Your task to perform on an android device: open app "Mercado Libre" (install if not already installed) Image 0: 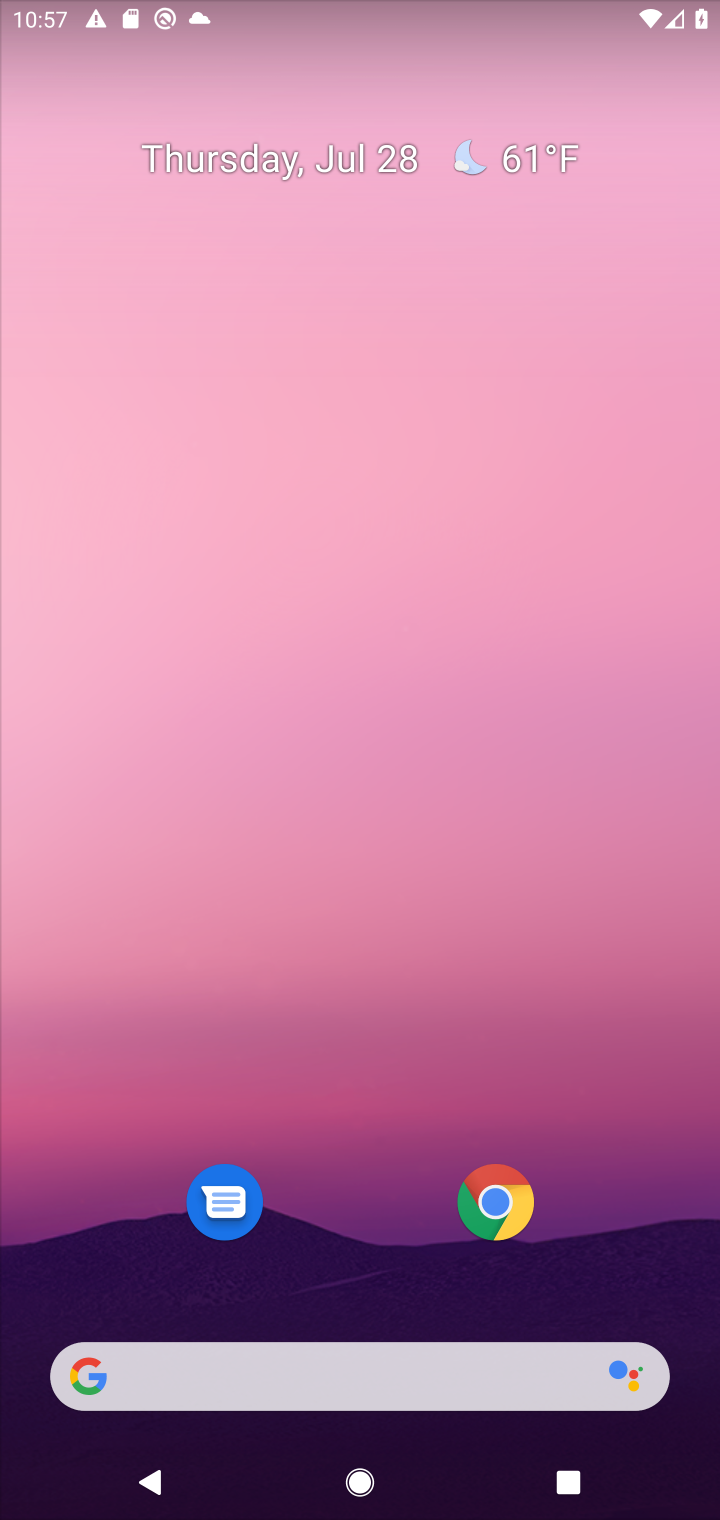
Step 0: click (442, 1364)
Your task to perform on an android device: open app "Mercado Libre" (install if not already installed) Image 1: 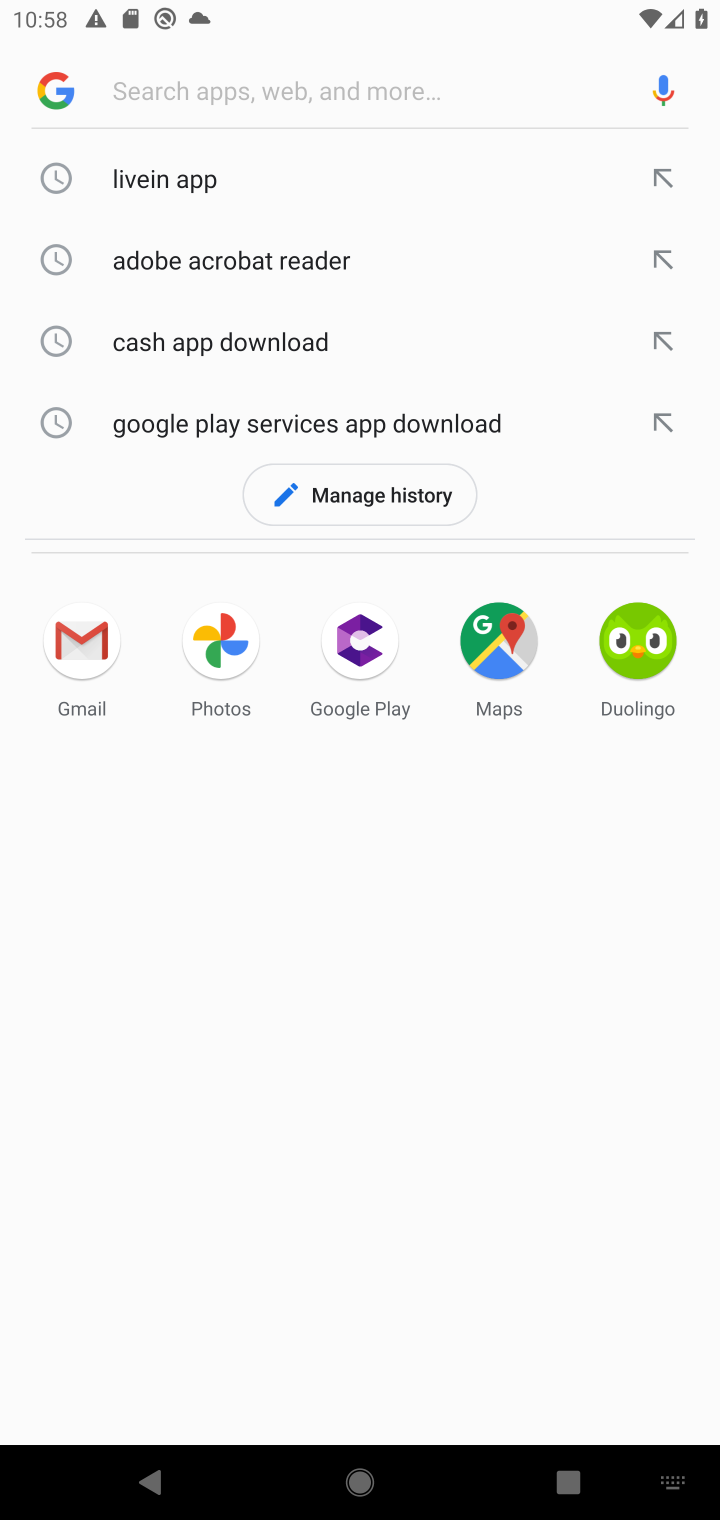
Step 1: type "mercado"
Your task to perform on an android device: open app "Mercado Libre" (install if not already installed) Image 2: 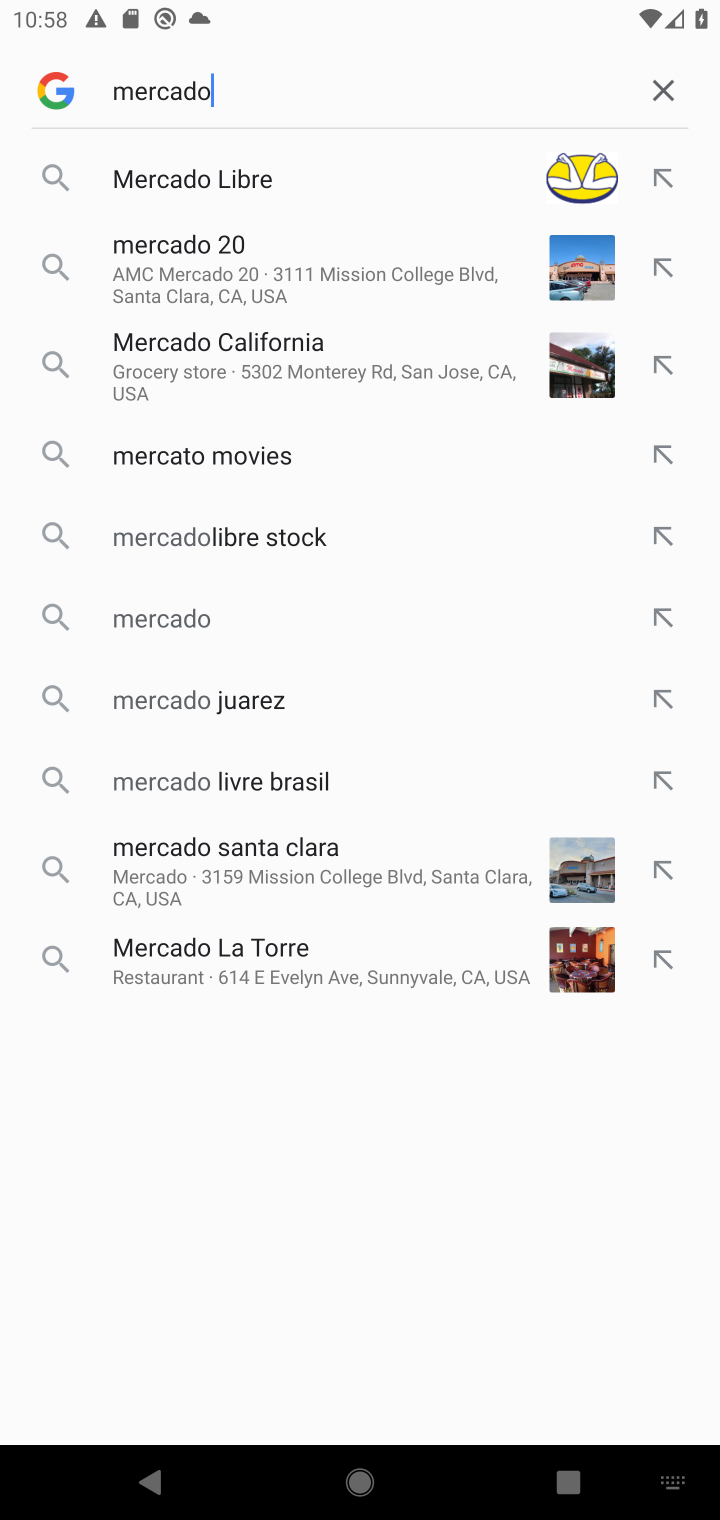
Step 2: click (131, 178)
Your task to perform on an android device: open app "Mercado Libre" (install if not already installed) Image 3: 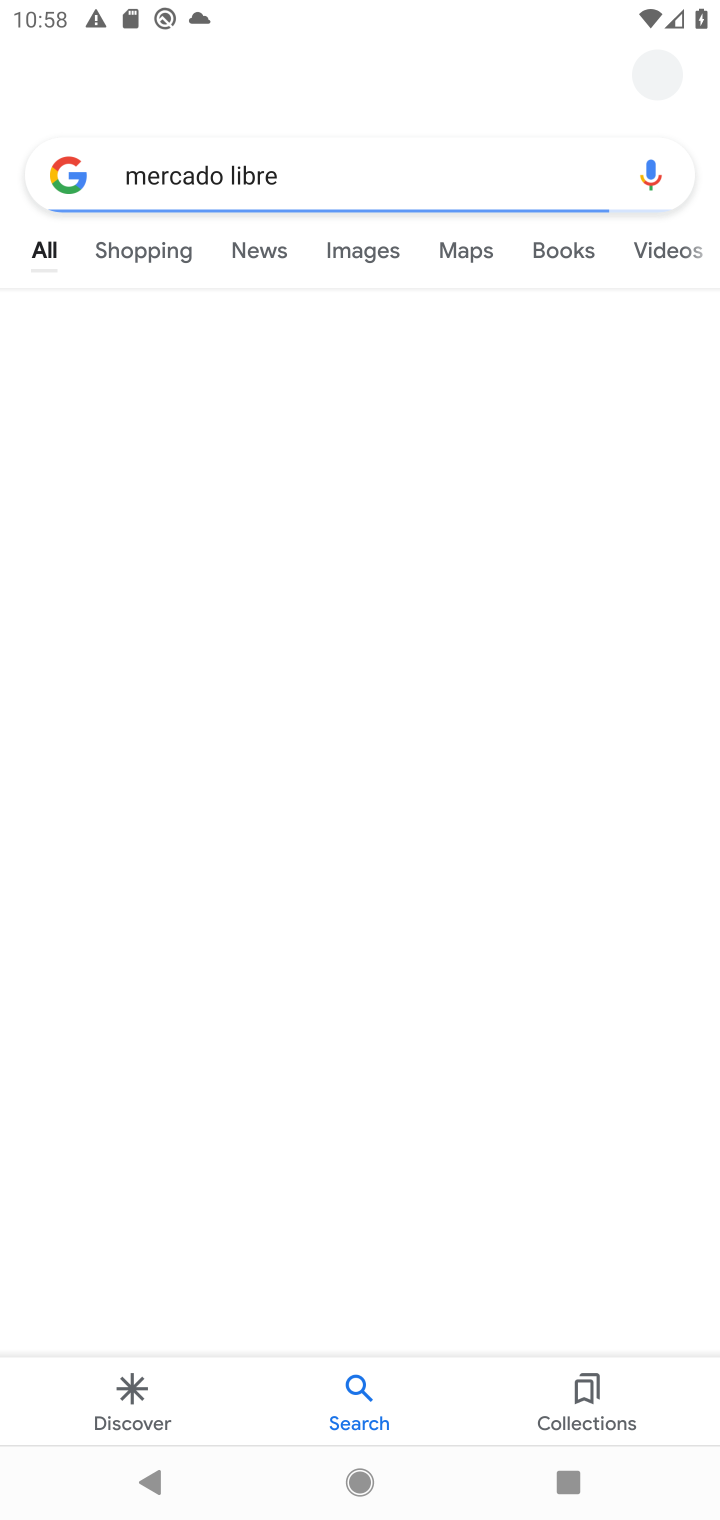
Step 3: task complete